Your task to perform on an android device: change your default location settings in chrome Image 0: 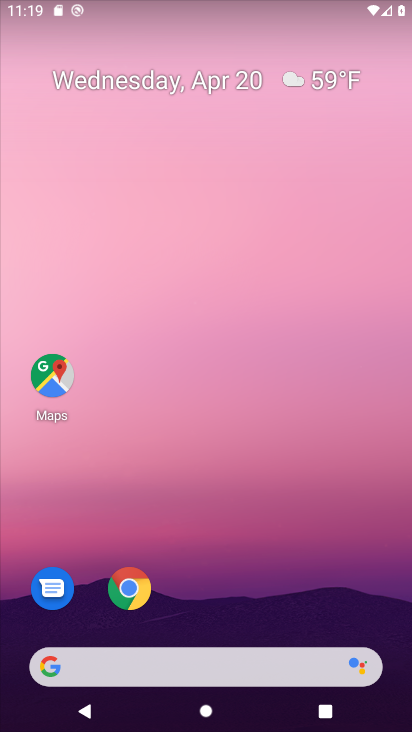
Step 0: click (124, 588)
Your task to perform on an android device: change your default location settings in chrome Image 1: 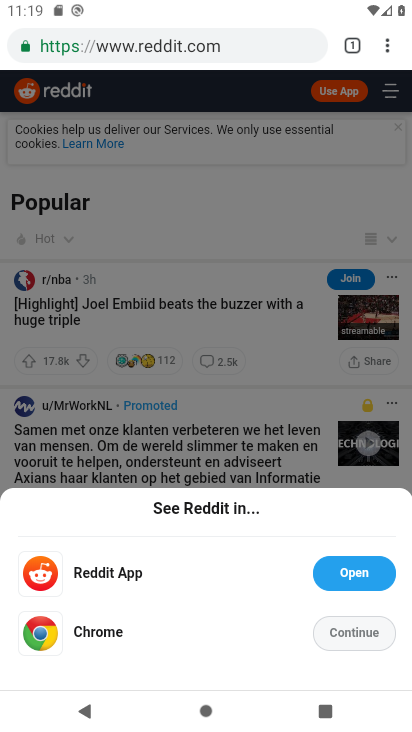
Step 1: click (384, 49)
Your task to perform on an android device: change your default location settings in chrome Image 2: 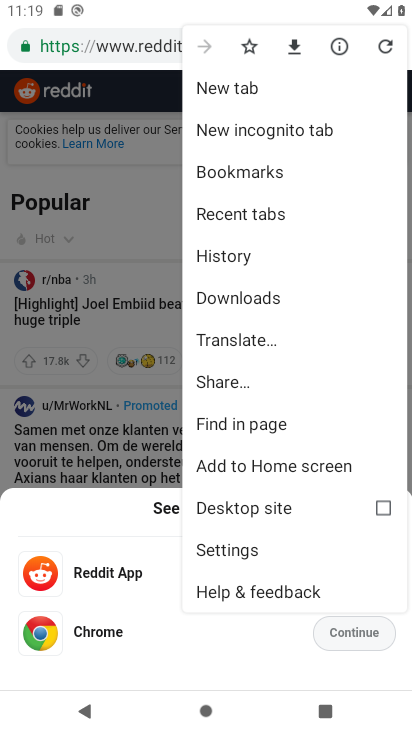
Step 2: click (238, 546)
Your task to perform on an android device: change your default location settings in chrome Image 3: 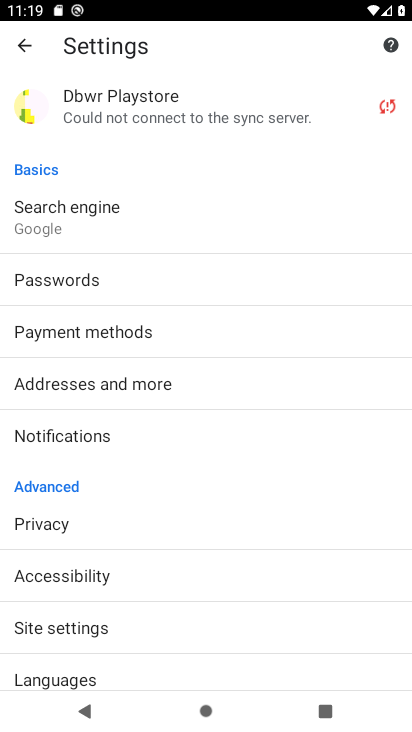
Step 3: drag from (181, 588) to (211, 377)
Your task to perform on an android device: change your default location settings in chrome Image 4: 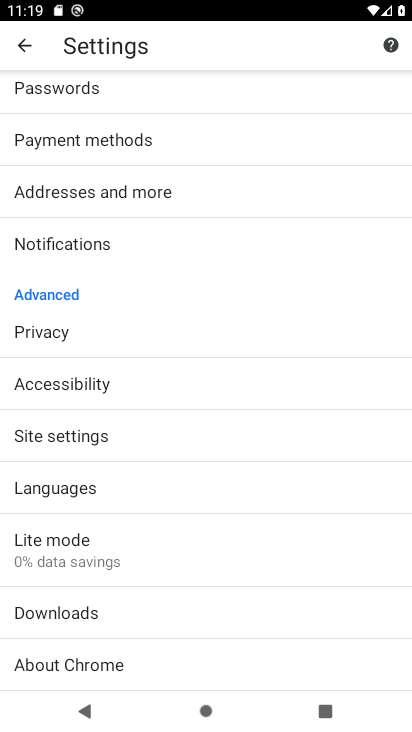
Step 4: click (51, 439)
Your task to perform on an android device: change your default location settings in chrome Image 5: 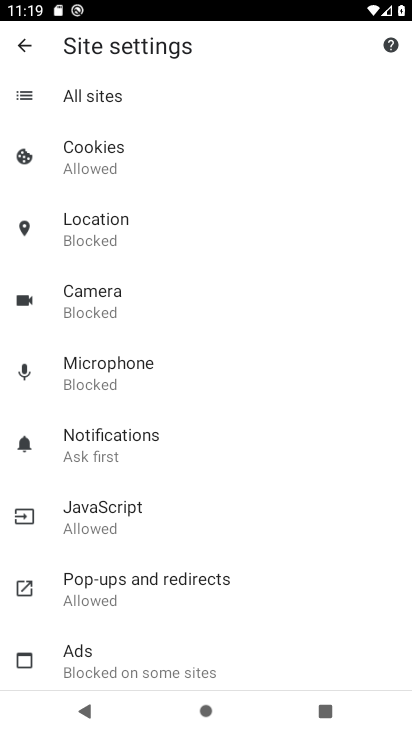
Step 5: click (90, 218)
Your task to perform on an android device: change your default location settings in chrome Image 6: 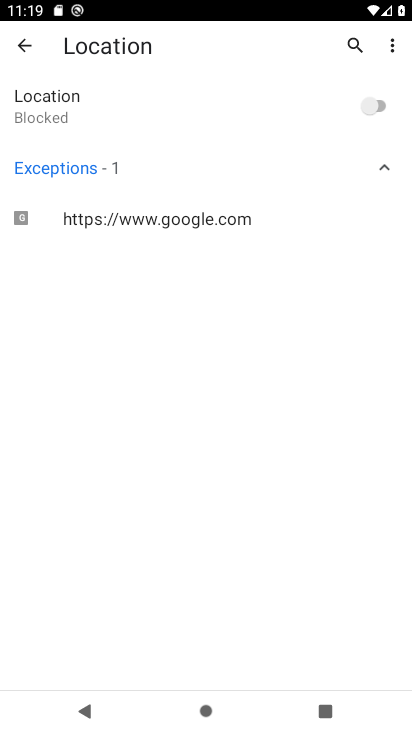
Step 6: click (377, 103)
Your task to perform on an android device: change your default location settings in chrome Image 7: 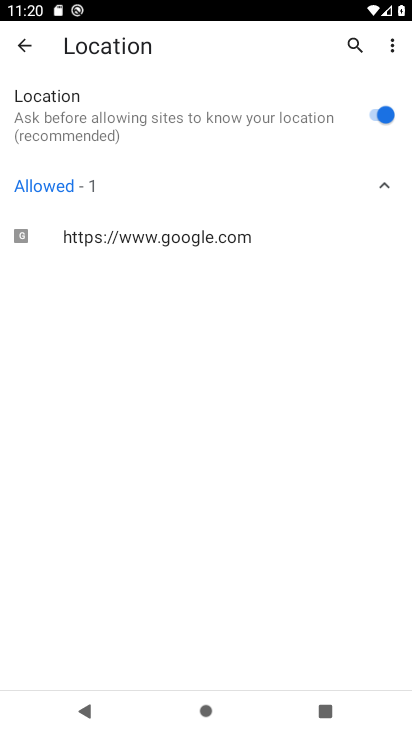
Step 7: task complete